Your task to perform on an android device: Open the map Image 0: 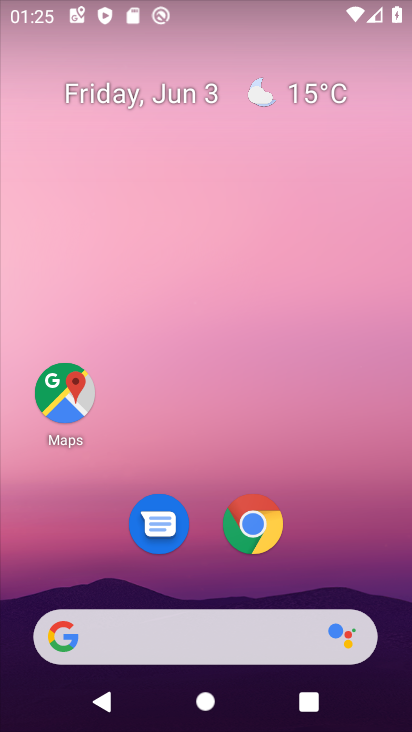
Step 0: click (62, 398)
Your task to perform on an android device: Open the map Image 1: 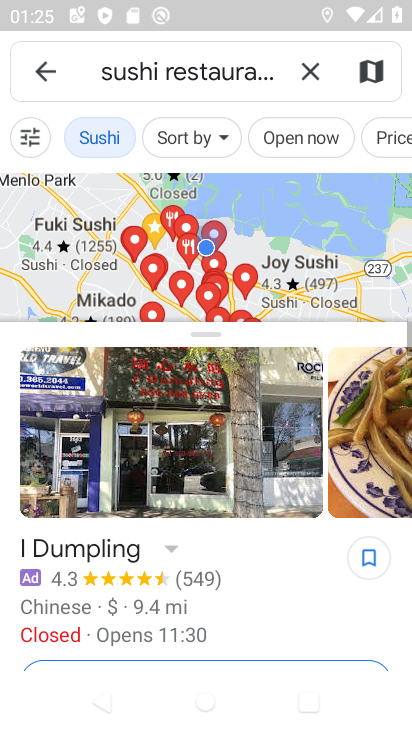
Step 1: click (304, 62)
Your task to perform on an android device: Open the map Image 2: 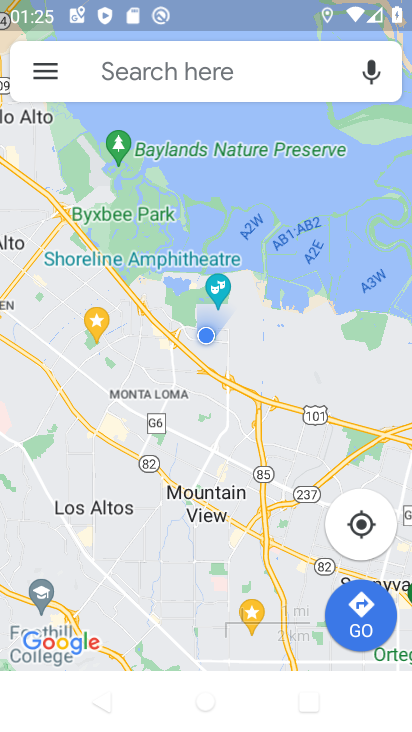
Step 2: task complete